Your task to perform on an android device: Open calendar and show me the second week of next month Image 0: 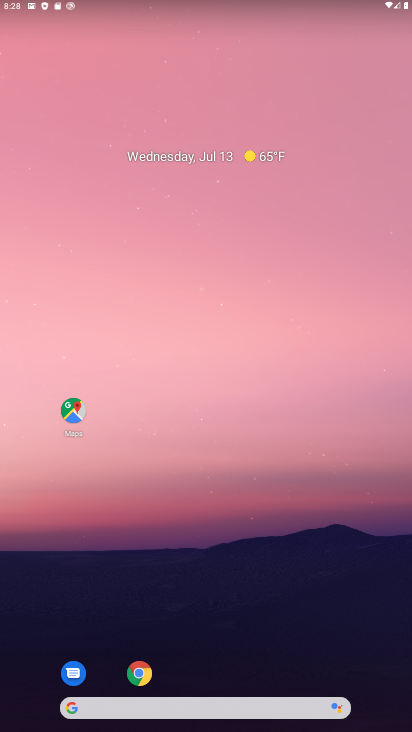
Step 0: drag from (230, 714) to (291, 180)
Your task to perform on an android device: Open calendar and show me the second week of next month Image 1: 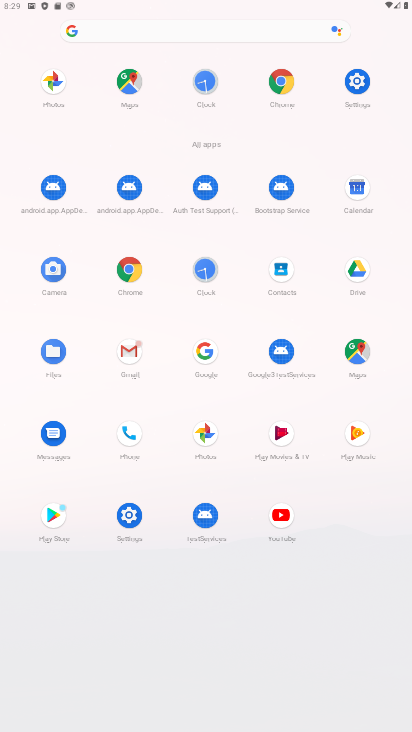
Step 1: click (355, 187)
Your task to perform on an android device: Open calendar and show me the second week of next month Image 2: 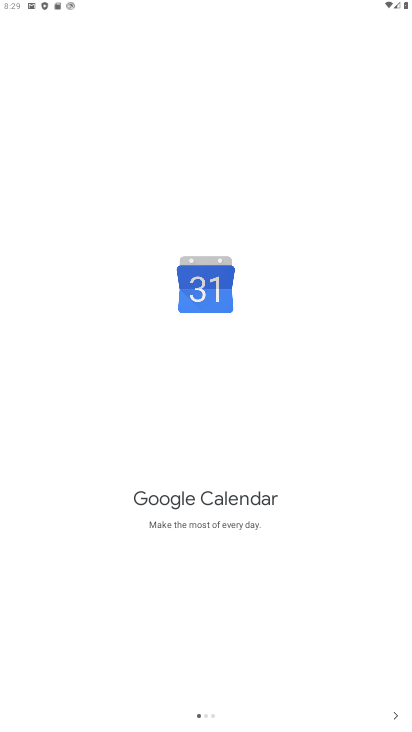
Step 2: click (395, 718)
Your task to perform on an android device: Open calendar and show me the second week of next month Image 3: 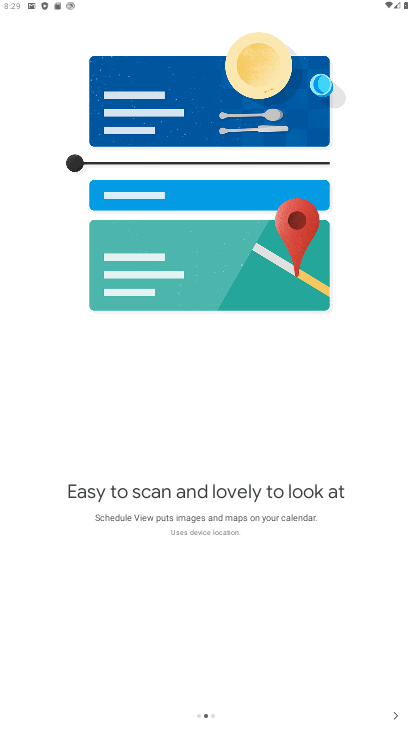
Step 3: click (395, 718)
Your task to perform on an android device: Open calendar and show me the second week of next month Image 4: 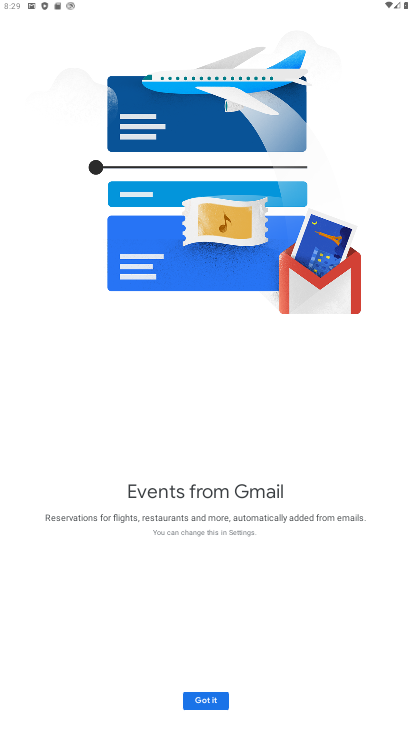
Step 4: click (201, 703)
Your task to perform on an android device: Open calendar and show me the second week of next month Image 5: 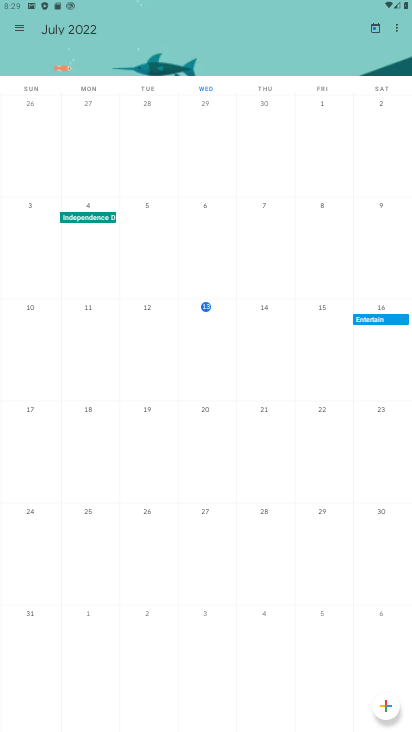
Step 5: drag from (371, 447) to (19, 421)
Your task to perform on an android device: Open calendar and show me the second week of next month Image 6: 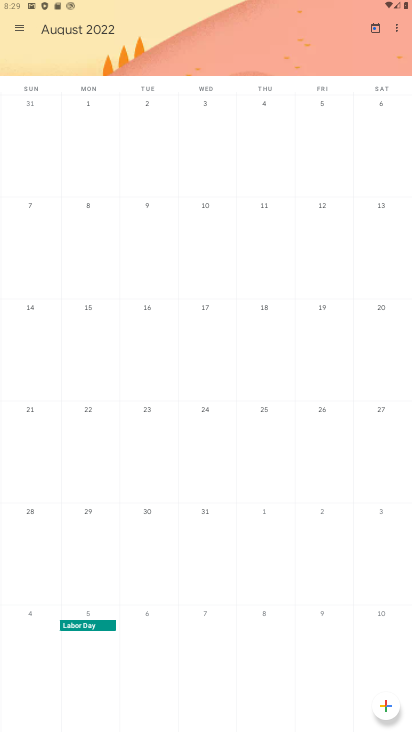
Step 6: click (97, 240)
Your task to perform on an android device: Open calendar and show me the second week of next month Image 7: 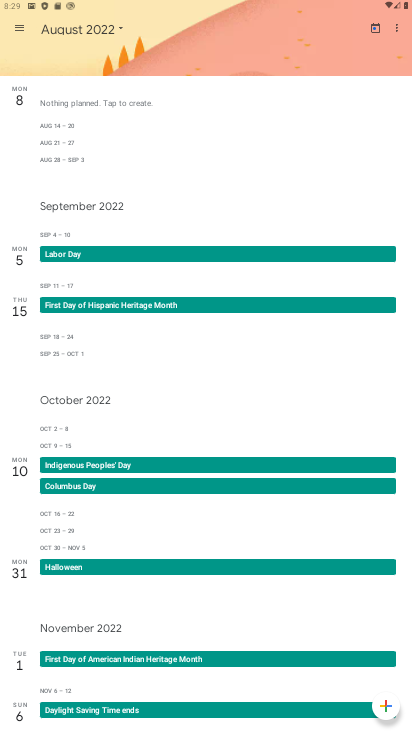
Step 7: click (24, 32)
Your task to perform on an android device: Open calendar and show me the second week of next month Image 8: 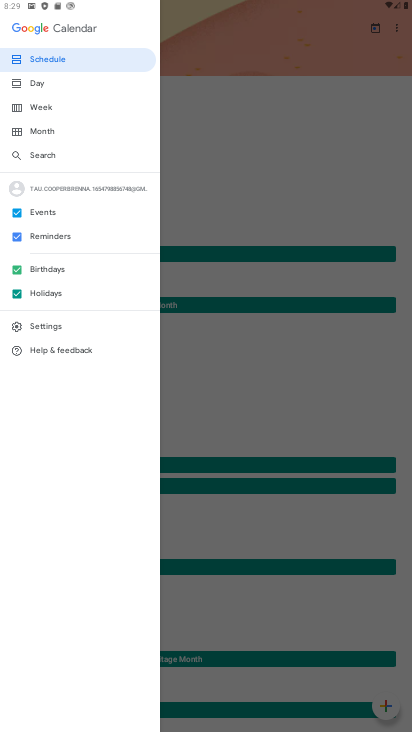
Step 8: click (44, 105)
Your task to perform on an android device: Open calendar and show me the second week of next month Image 9: 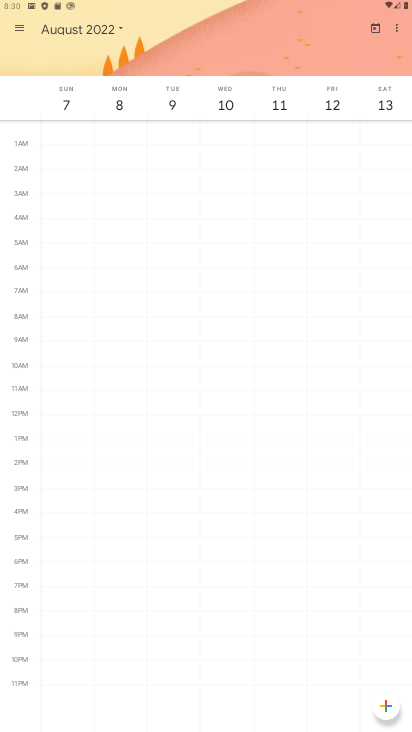
Step 9: task complete